Your task to perform on an android device: all mails in gmail Image 0: 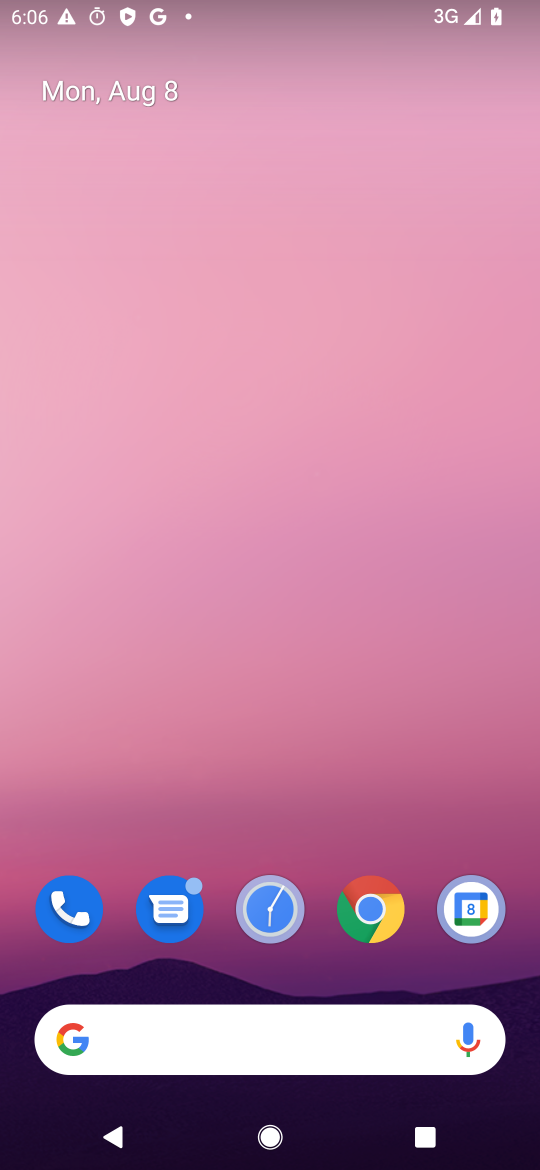
Step 0: drag from (239, 1039) to (435, 340)
Your task to perform on an android device: all mails in gmail Image 1: 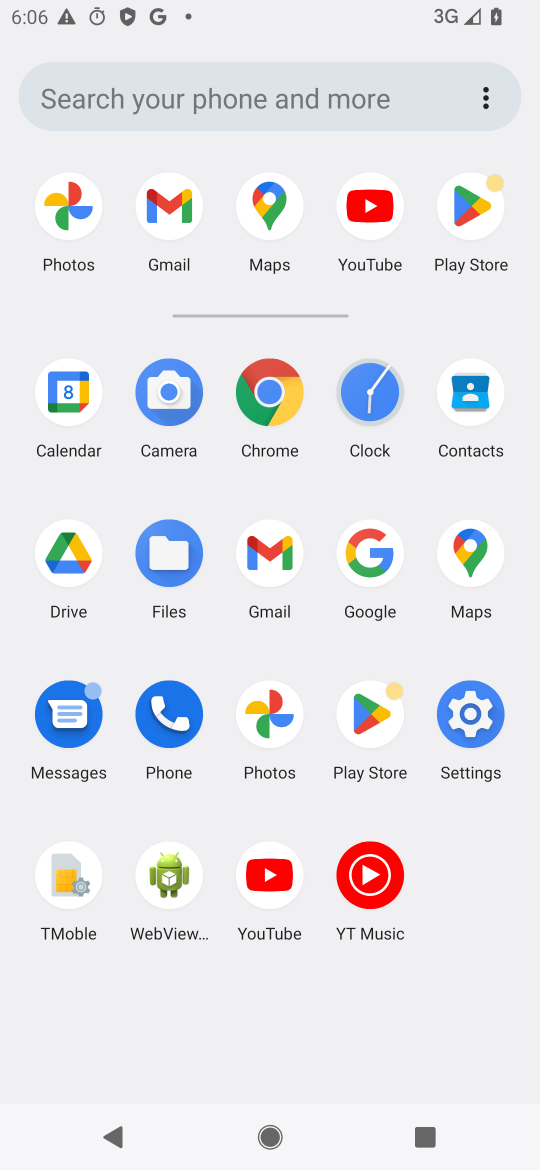
Step 1: click (163, 198)
Your task to perform on an android device: all mails in gmail Image 2: 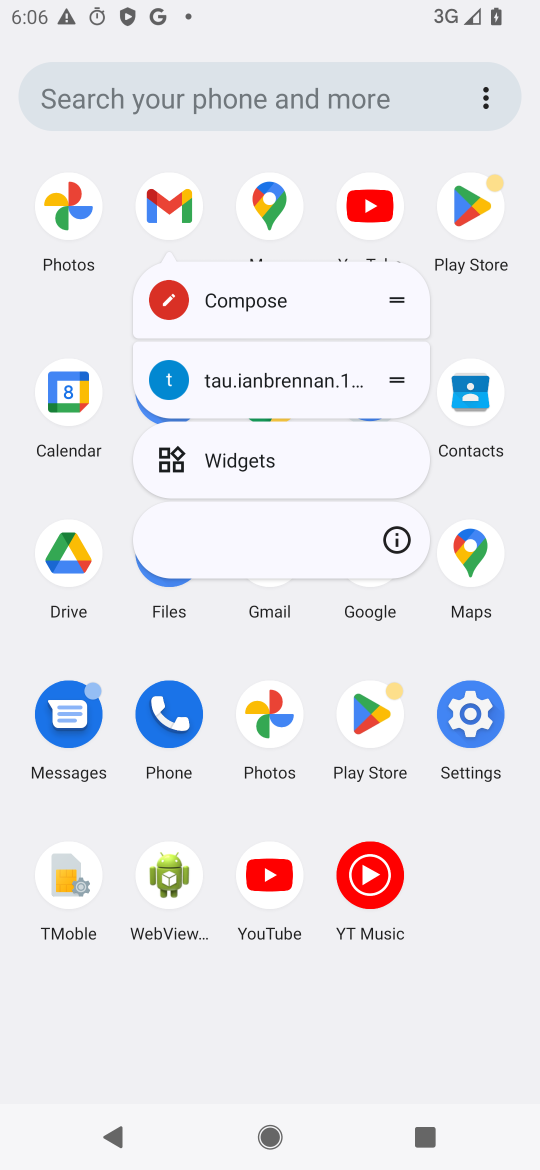
Step 2: click (168, 196)
Your task to perform on an android device: all mails in gmail Image 3: 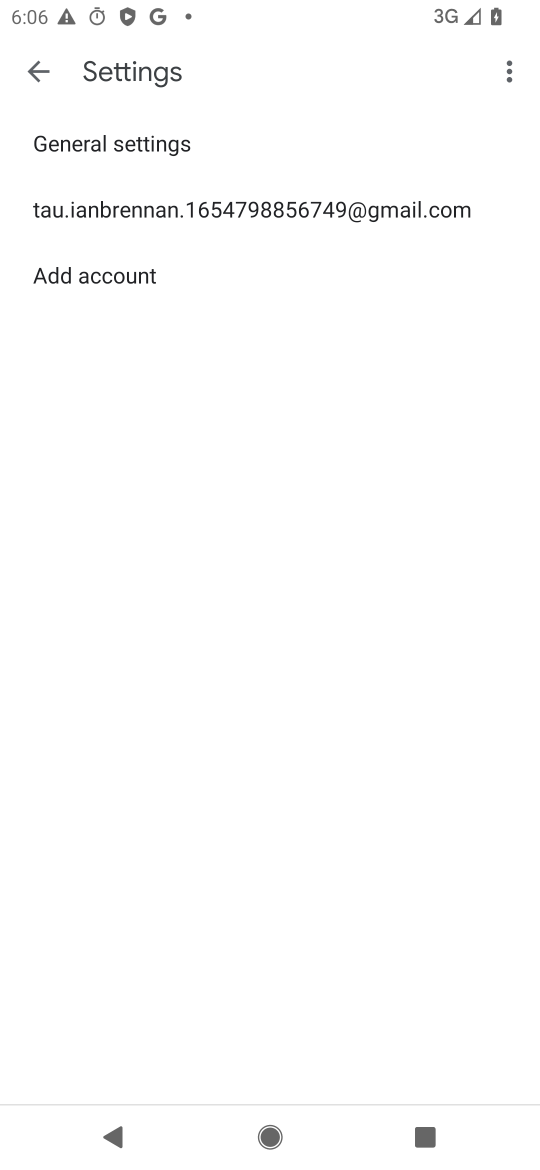
Step 3: click (28, 63)
Your task to perform on an android device: all mails in gmail Image 4: 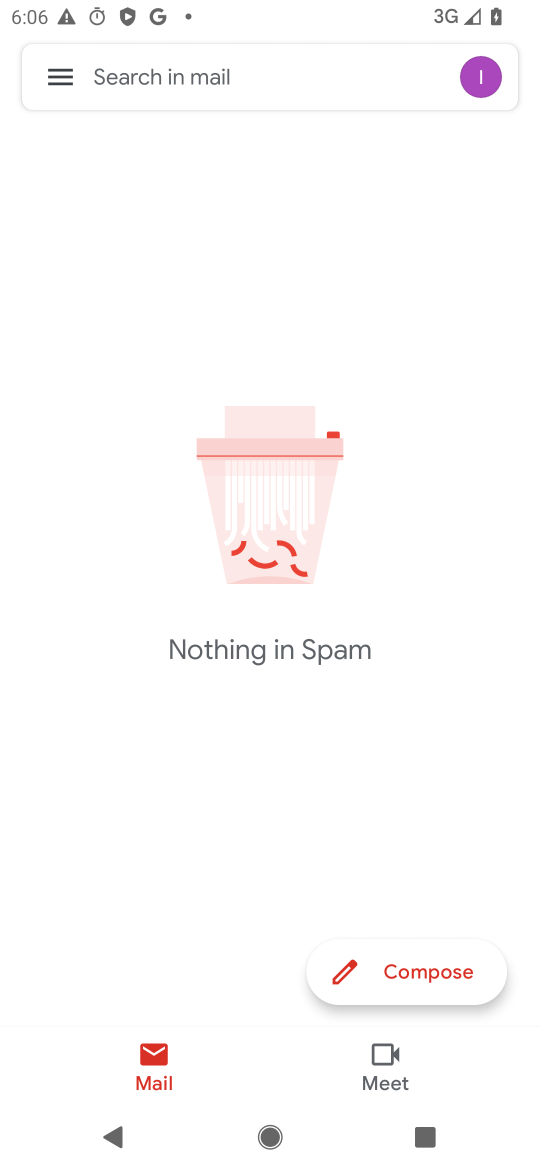
Step 4: click (54, 74)
Your task to perform on an android device: all mails in gmail Image 5: 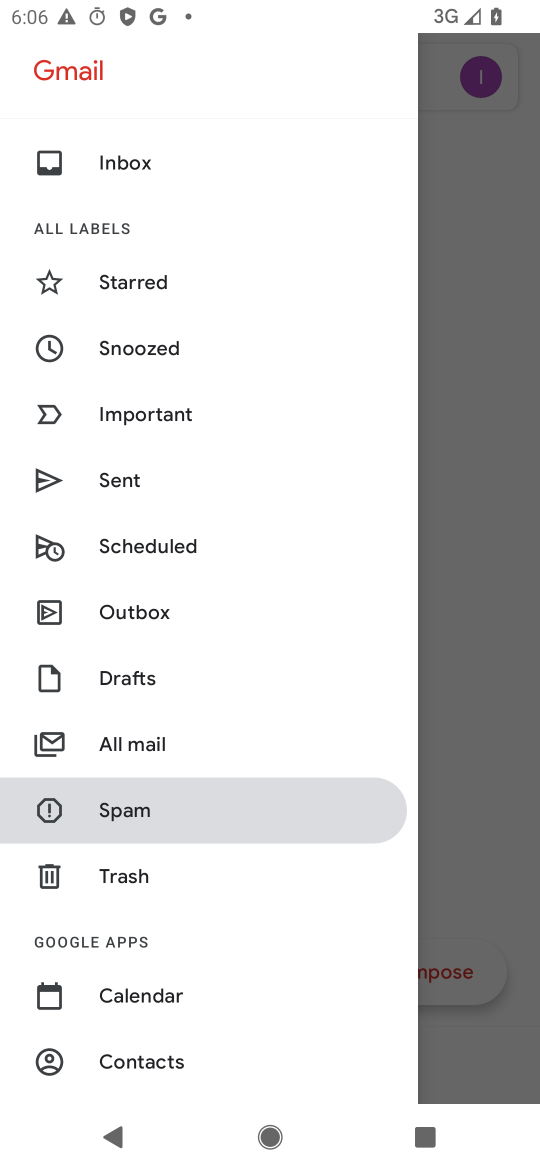
Step 5: click (113, 736)
Your task to perform on an android device: all mails in gmail Image 6: 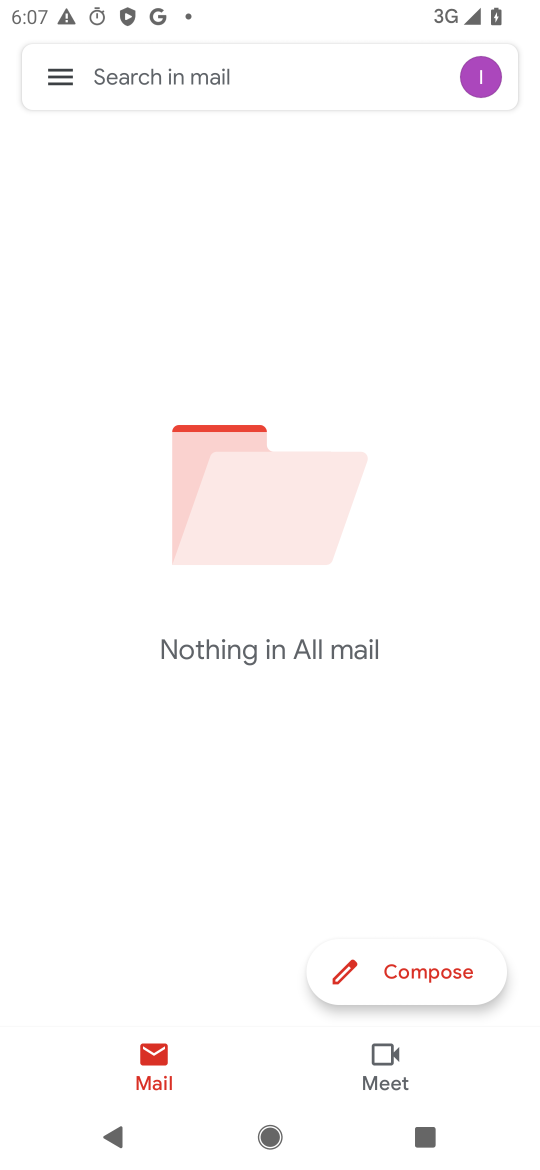
Step 6: task complete